Your task to perform on an android device: check google app version Image 0: 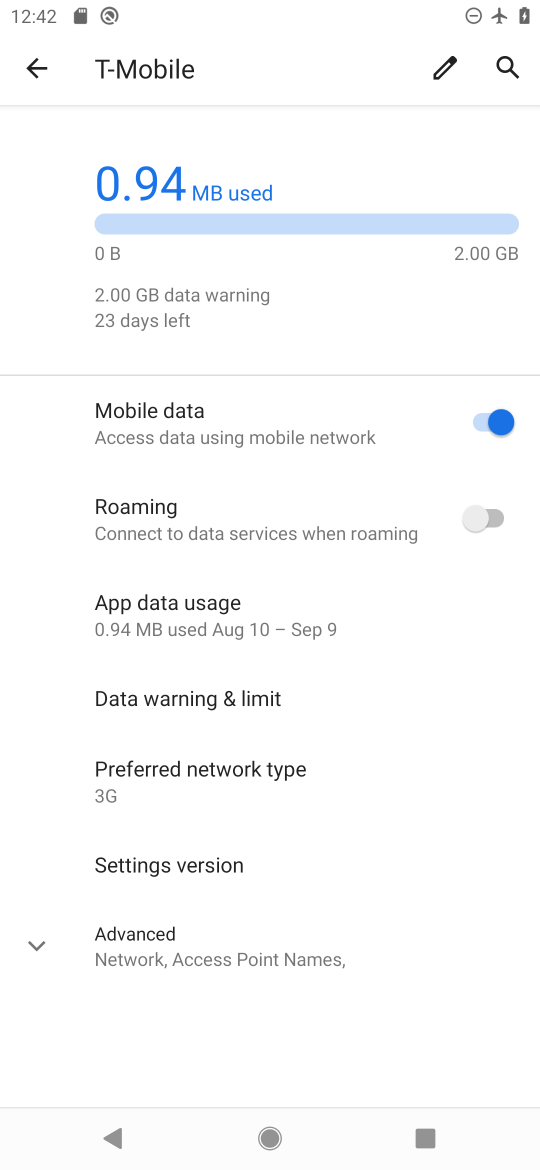
Step 0: press home button
Your task to perform on an android device: check google app version Image 1: 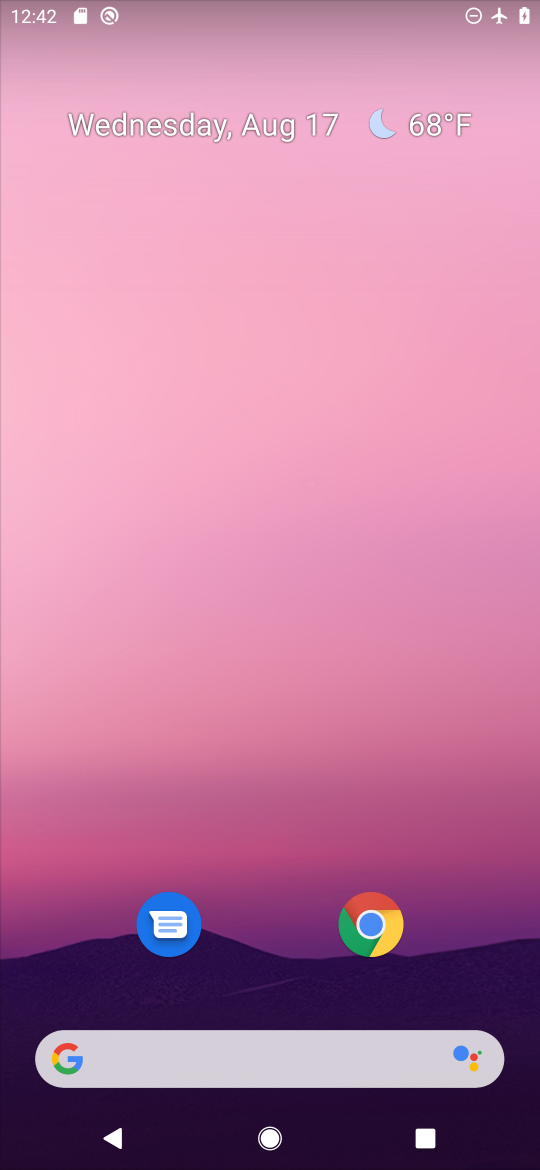
Step 1: click (220, 1043)
Your task to perform on an android device: check google app version Image 2: 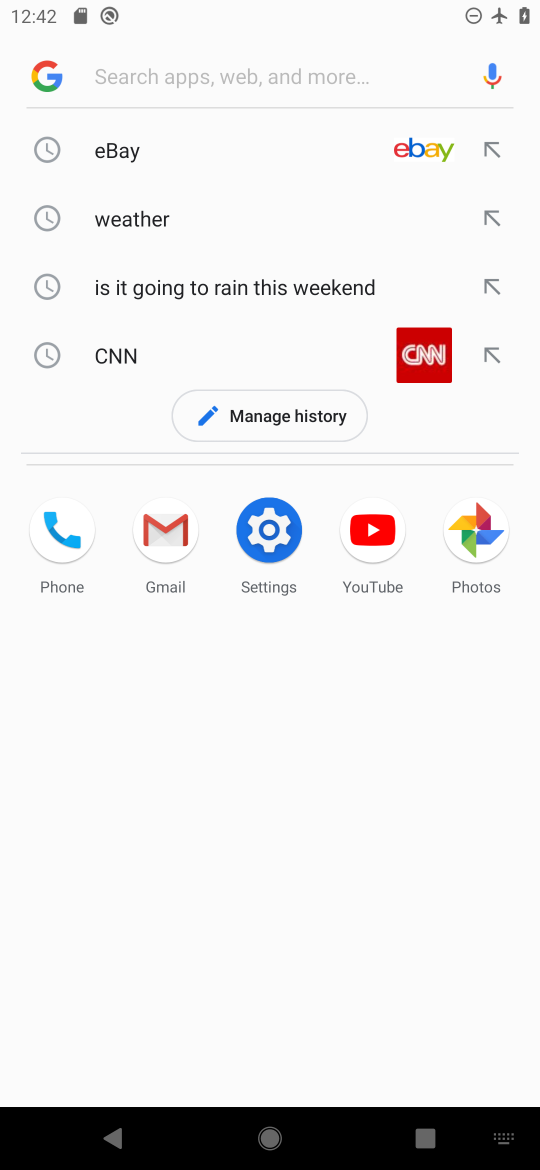
Step 2: click (38, 68)
Your task to perform on an android device: check google app version Image 3: 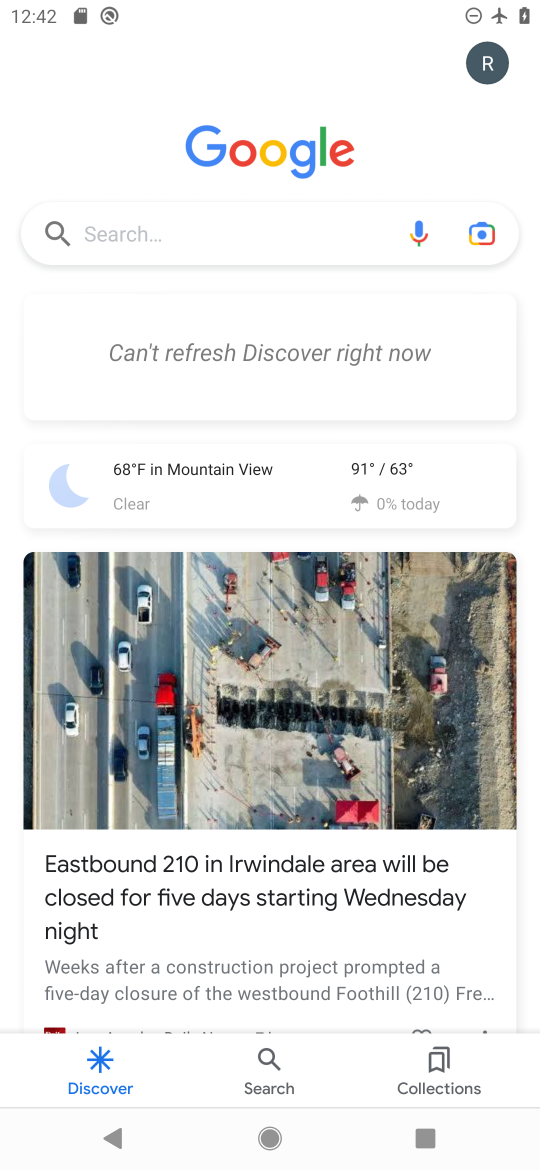
Step 3: click (495, 72)
Your task to perform on an android device: check google app version Image 4: 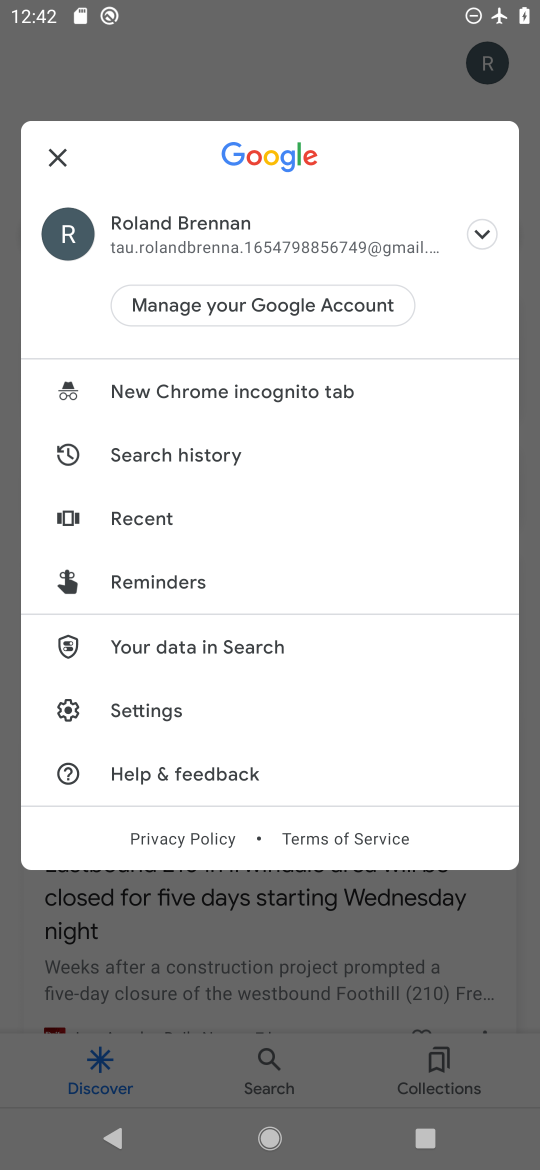
Step 4: click (134, 716)
Your task to perform on an android device: check google app version Image 5: 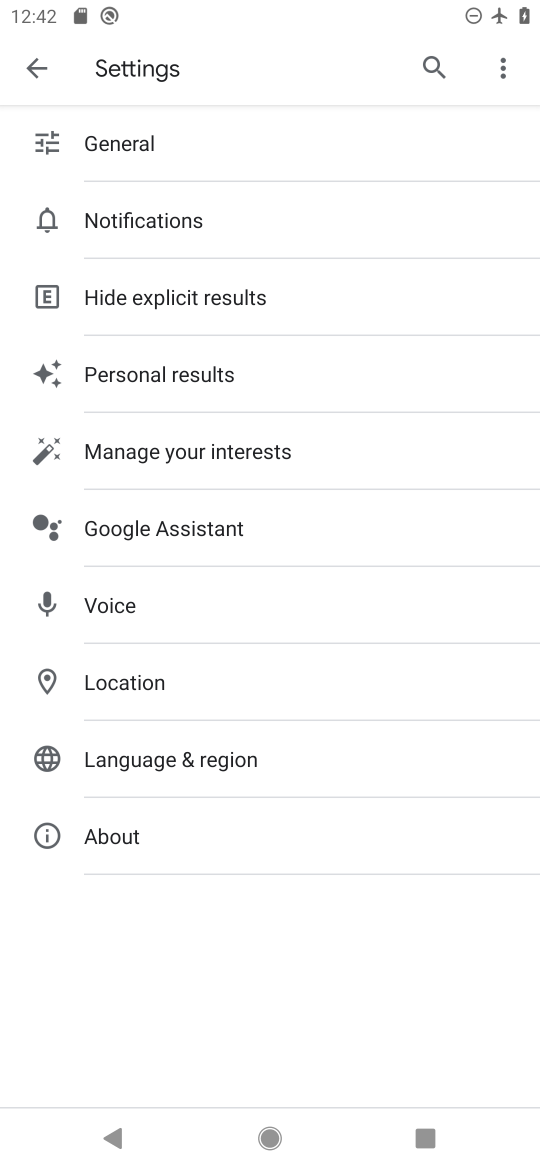
Step 5: click (145, 856)
Your task to perform on an android device: check google app version Image 6: 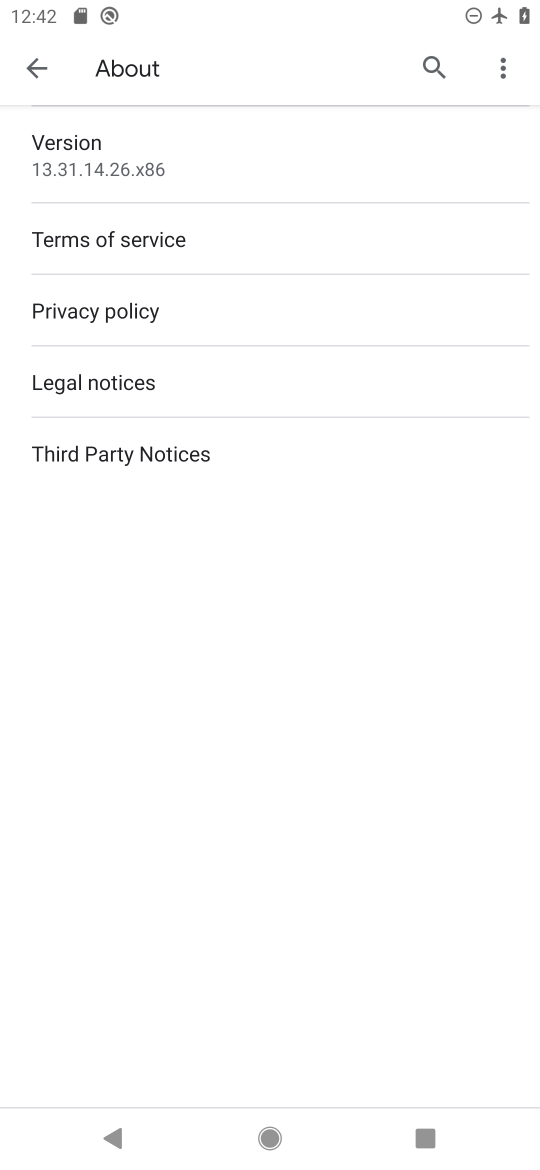
Step 6: task complete